Your task to perform on an android device: turn on showing notifications on the lock screen Image 0: 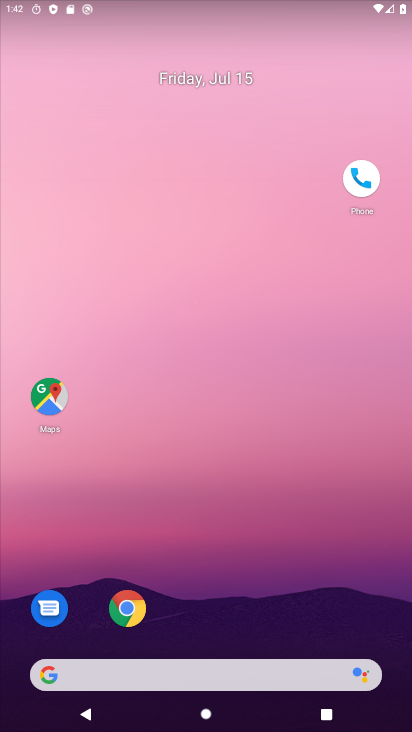
Step 0: click (275, 341)
Your task to perform on an android device: turn on showing notifications on the lock screen Image 1: 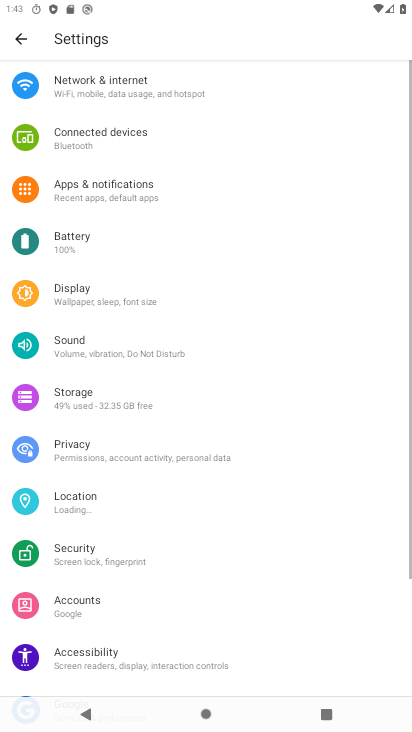
Step 1: drag from (271, 596) to (271, 135)
Your task to perform on an android device: turn on showing notifications on the lock screen Image 2: 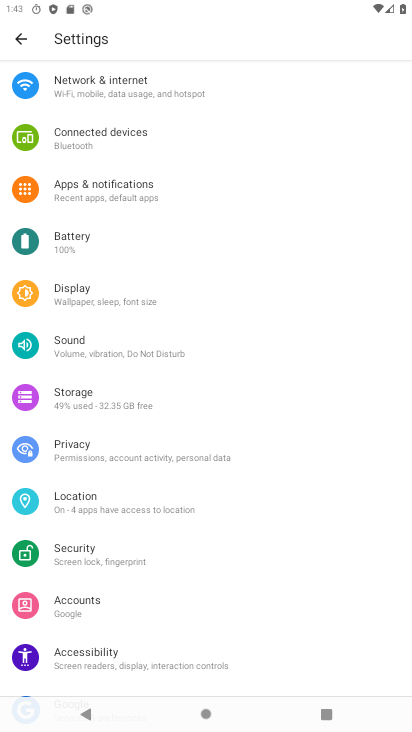
Step 2: click (229, 267)
Your task to perform on an android device: turn on showing notifications on the lock screen Image 3: 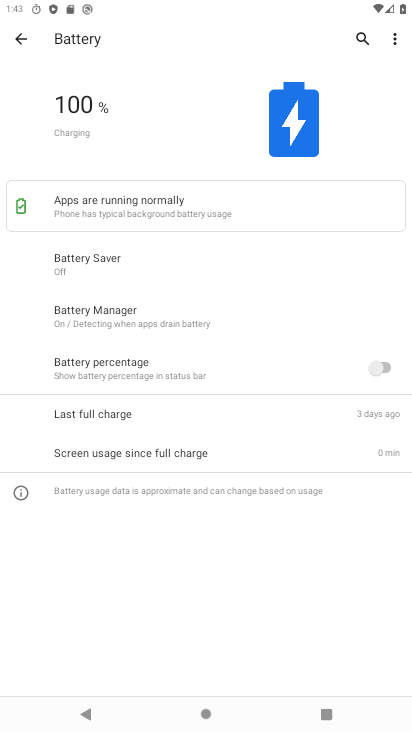
Step 3: drag from (130, 186) to (197, 555)
Your task to perform on an android device: turn on showing notifications on the lock screen Image 4: 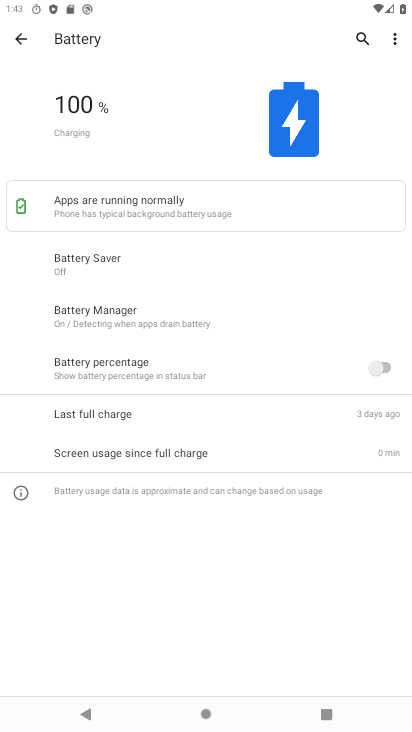
Step 4: click (18, 25)
Your task to perform on an android device: turn on showing notifications on the lock screen Image 5: 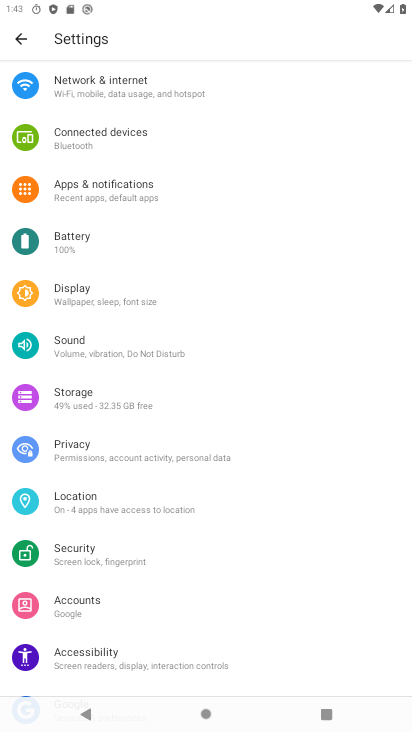
Step 5: click (108, 198)
Your task to perform on an android device: turn on showing notifications on the lock screen Image 6: 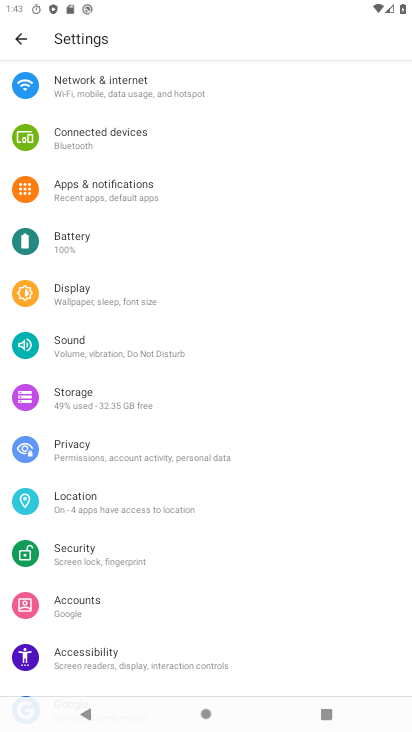
Step 6: click (107, 198)
Your task to perform on an android device: turn on showing notifications on the lock screen Image 7: 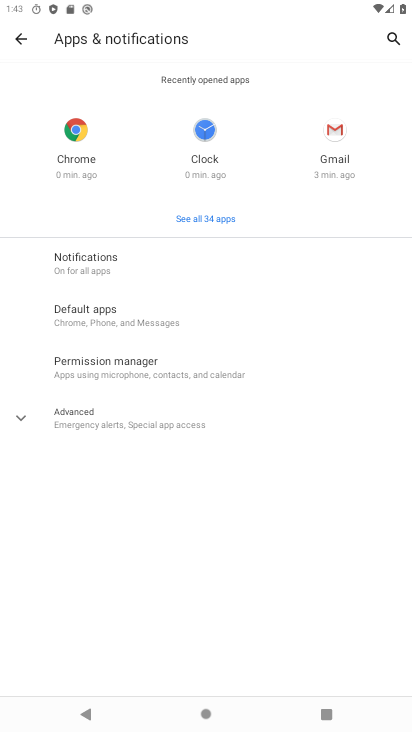
Step 7: click (95, 414)
Your task to perform on an android device: turn on showing notifications on the lock screen Image 8: 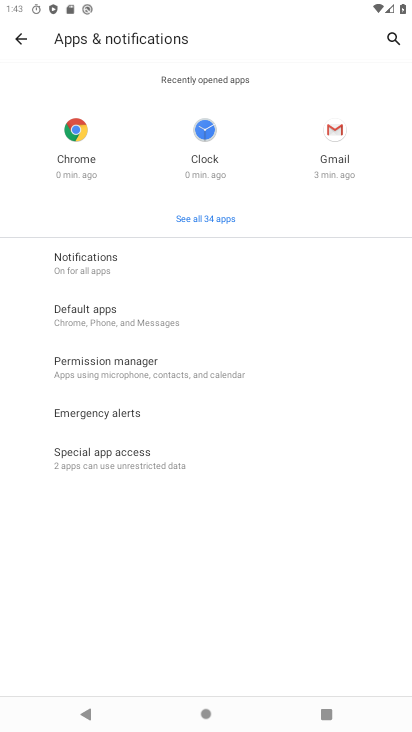
Step 8: click (183, 259)
Your task to perform on an android device: turn on showing notifications on the lock screen Image 9: 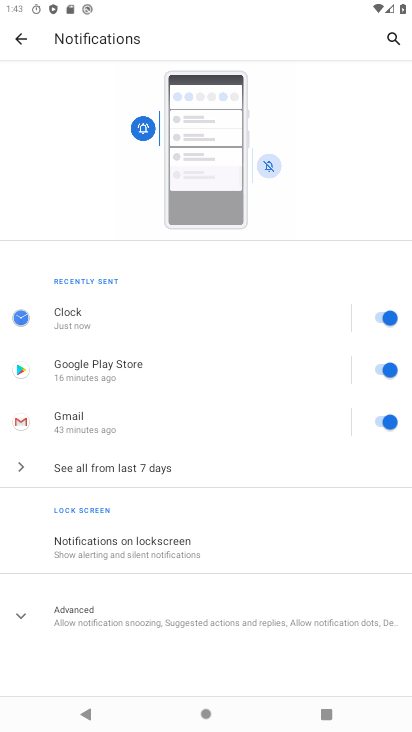
Step 9: click (183, 543)
Your task to perform on an android device: turn on showing notifications on the lock screen Image 10: 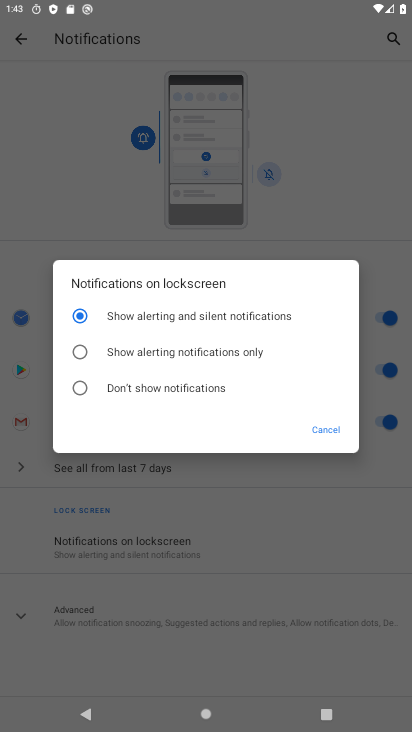
Step 10: task complete